Your task to perform on an android device: turn notification dots off Image 0: 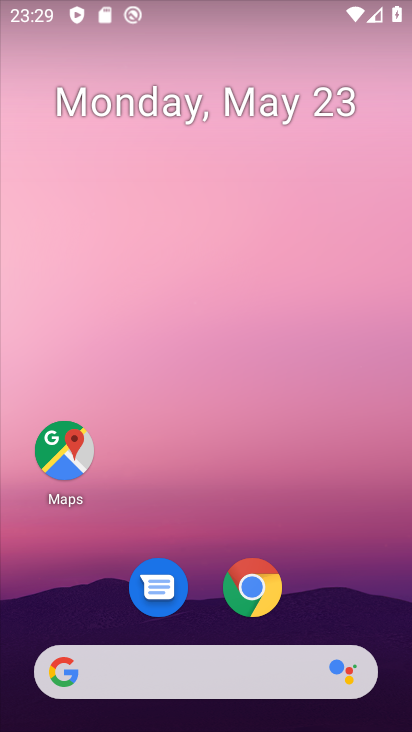
Step 0: drag from (332, 611) to (289, 283)
Your task to perform on an android device: turn notification dots off Image 1: 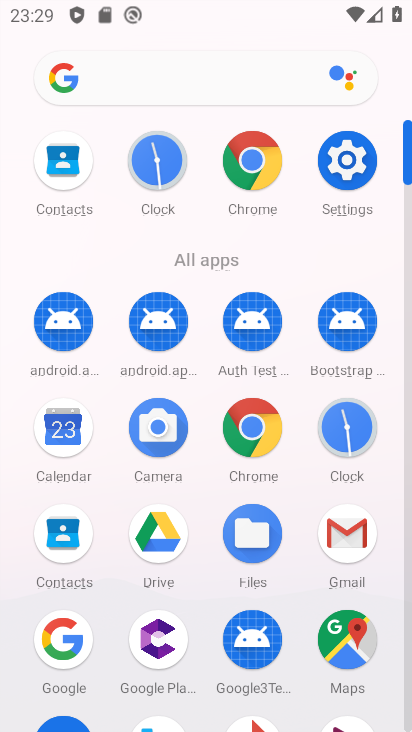
Step 1: click (345, 162)
Your task to perform on an android device: turn notification dots off Image 2: 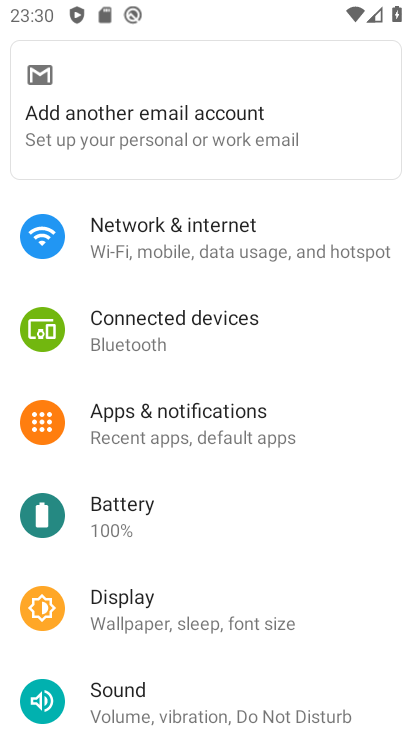
Step 2: click (216, 413)
Your task to perform on an android device: turn notification dots off Image 3: 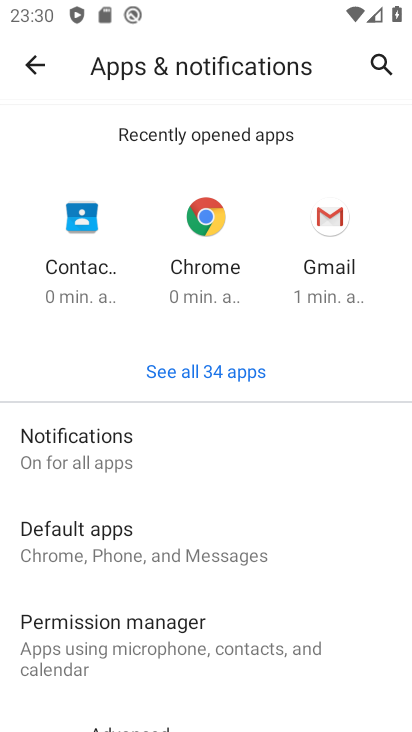
Step 3: click (115, 439)
Your task to perform on an android device: turn notification dots off Image 4: 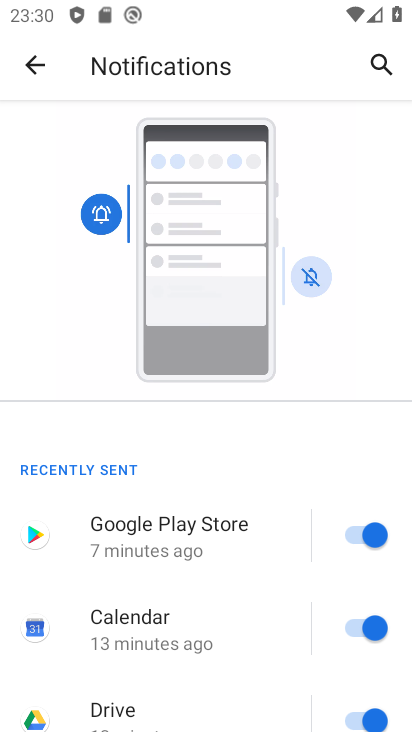
Step 4: drag from (211, 488) to (275, 324)
Your task to perform on an android device: turn notification dots off Image 5: 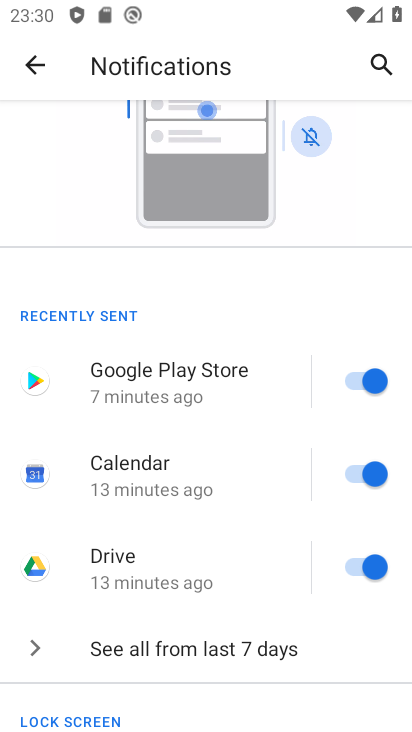
Step 5: drag from (149, 529) to (225, 401)
Your task to perform on an android device: turn notification dots off Image 6: 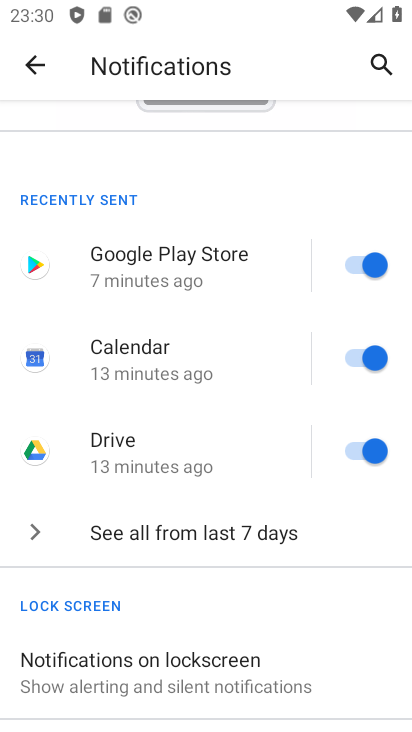
Step 6: drag from (158, 580) to (207, 477)
Your task to perform on an android device: turn notification dots off Image 7: 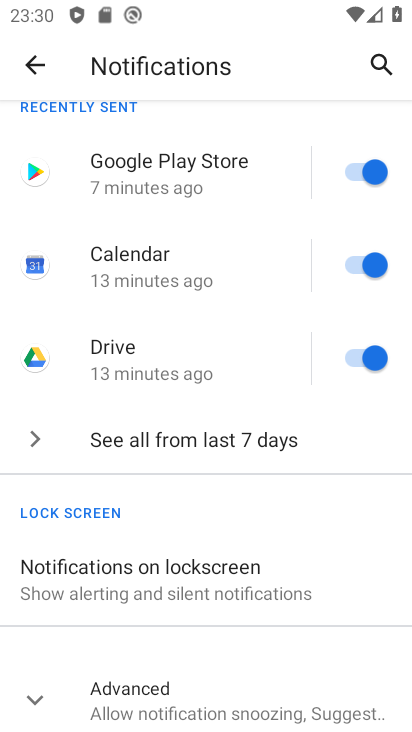
Step 7: drag from (144, 621) to (210, 502)
Your task to perform on an android device: turn notification dots off Image 8: 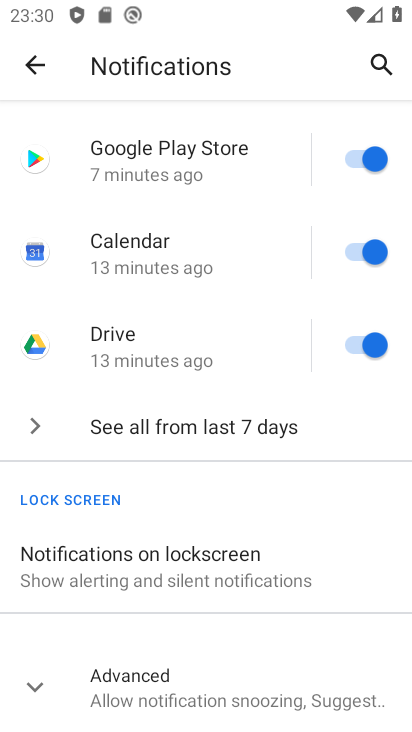
Step 8: click (167, 695)
Your task to perform on an android device: turn notification dots off Image 9: 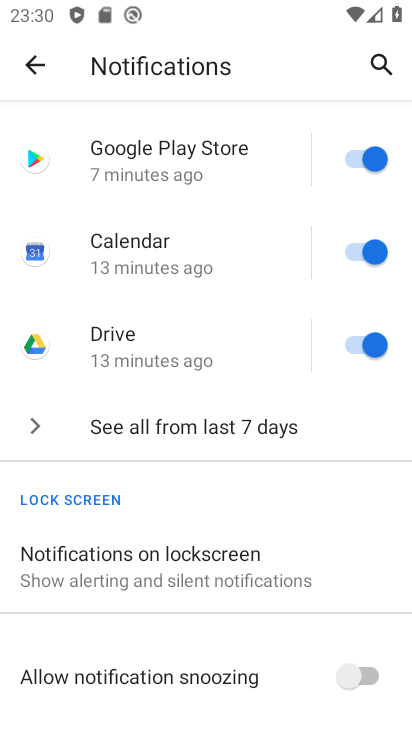
Step 9: task complete